Your task to perform on an android device: turn off smart reply in the gmail app Image 0: 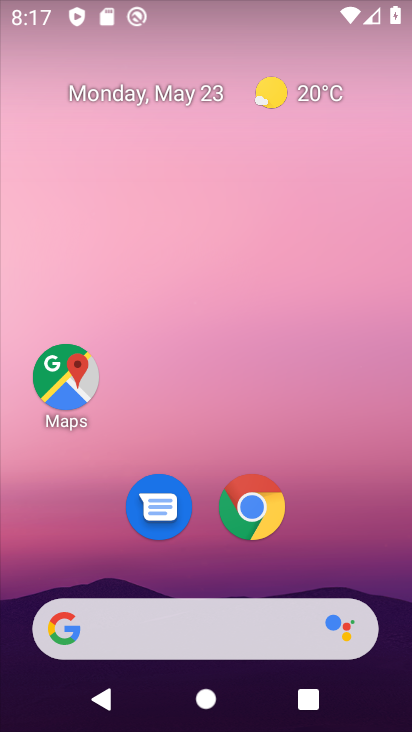
Step 0: drag from (345, 589) to (364, 37)
Your task to perform on an android device: turn off smart reply in the gmail app Image 1: 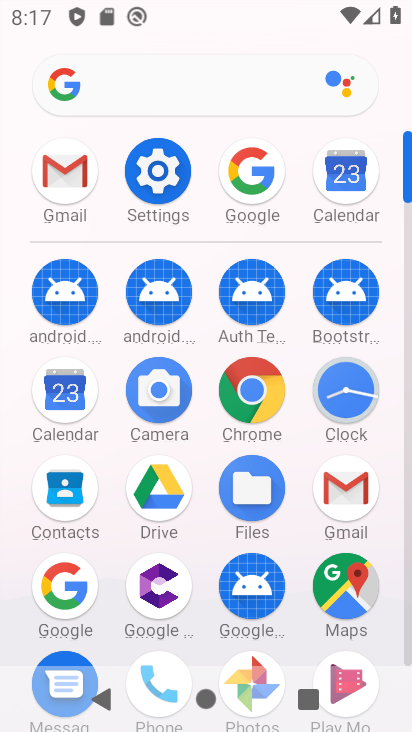
Step 1: click (72, 180)
Your task to perform on an android device: turn off smart reply in the gmail app Image 2: 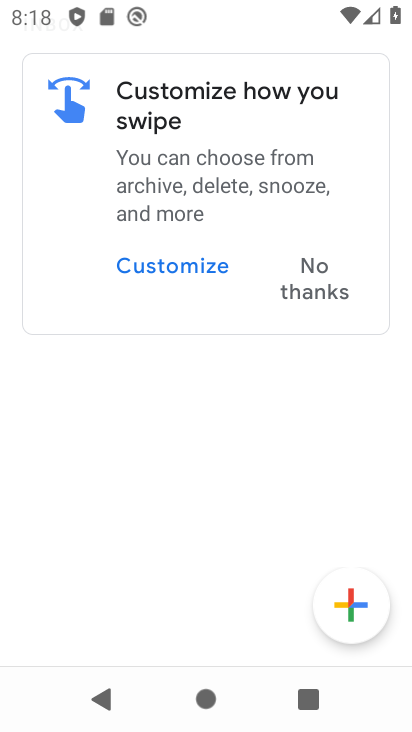
Step 2: drag from (193, 386) to (203, 472)
Your task to perform on an android device: turn off smart reply in the gmail app Image 3: 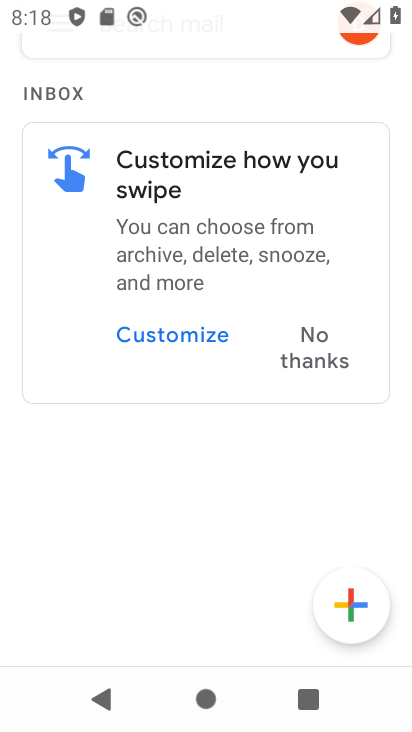
Step 3: drag from (107, 161) to (106, 318)
Your task to perform on an android device: turn off smart reply in the gmail app Image 4: 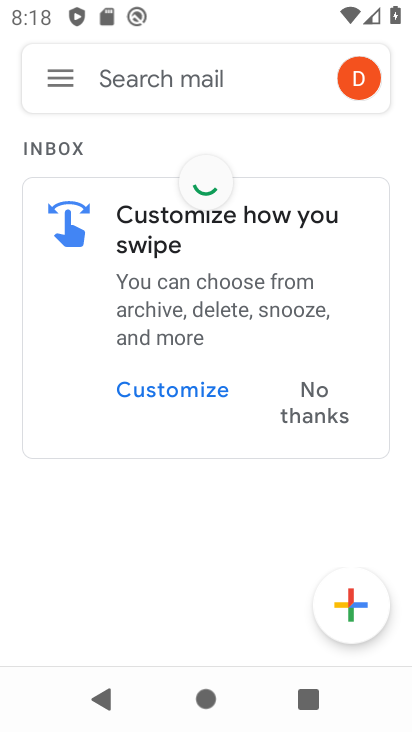
Step 4: click (54, 82)
Your task to perform on an android device: turn off smart reply in the gmail app Image 5: 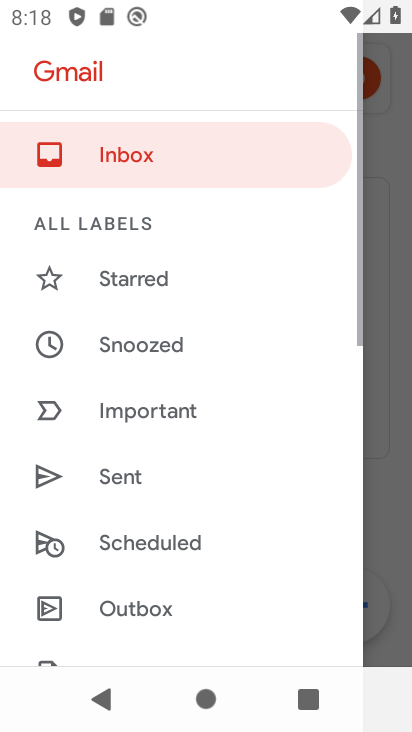
Step 5: drag from (156, 550) to (148, 61)
Your task to perform on an android device: turn off smart reply in the gmail app Image 6: 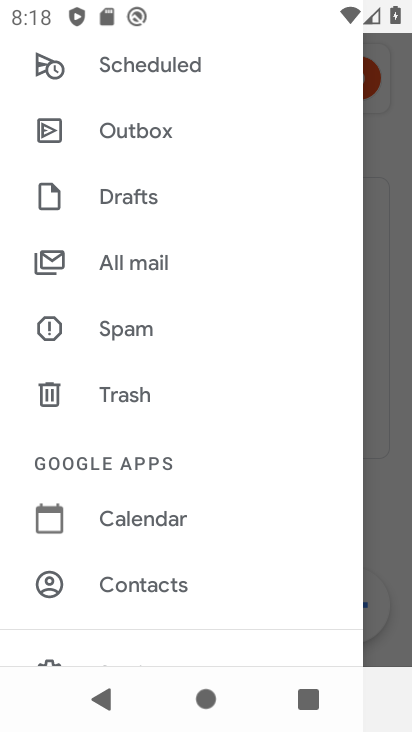
Step 6: drag from (137, 535) to (107, 171)
Your task to perform on an android device: turn off smart reply in the gmail app Image 7: 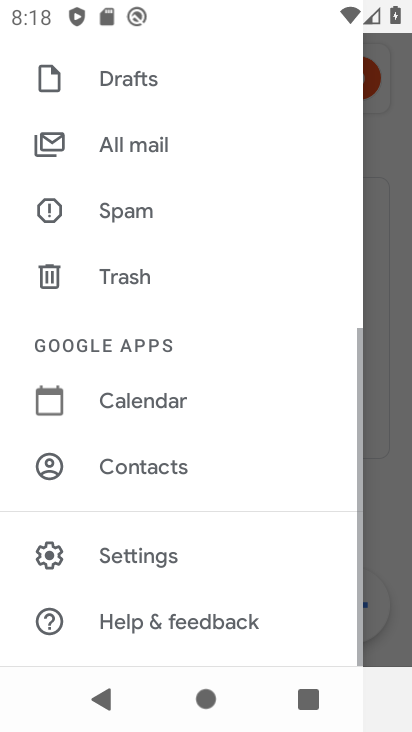
Step 7: click (100, 556)
Your task to perform on an android device: turn off smart reply in the gmail app Image 8: 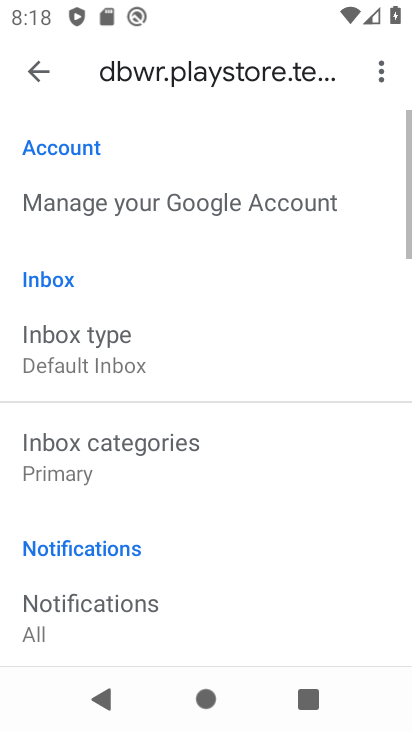
Step 8: drag from (209, 600) to (176, 72)
Your task to perform on an android device: turn off smart reply in the gmail app Image 9: 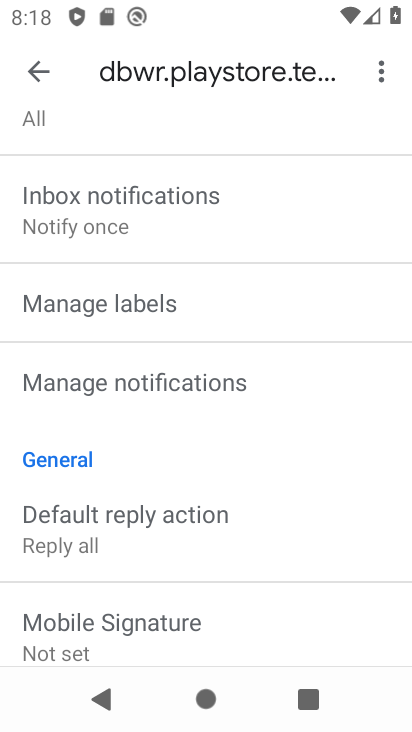
Step 9: drag from (188, 497) to (180, 78)
Your task to perform on an android device: turn off smart reply in the gmail app Image 10: 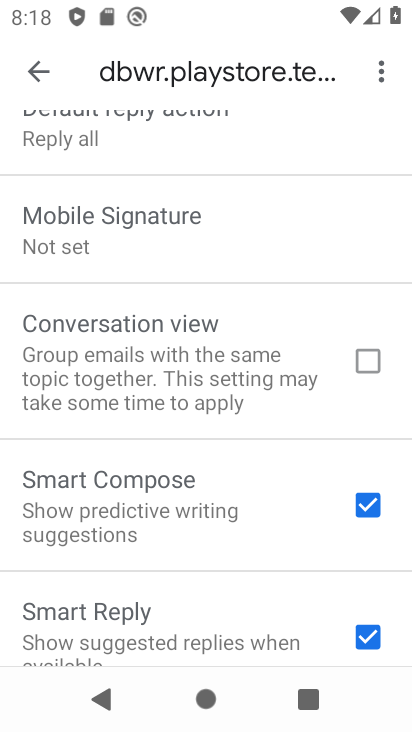
Step 10: drag from (168, 527) to (187, 227)
Your task to perform on an android device: turn off smart reply in the gmail app Image 11: 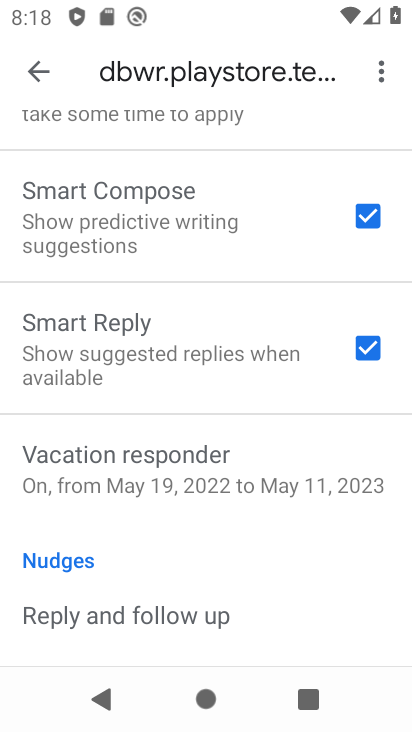
Step 11: click (374, 351)
Your task to perform on an android device: turn off smart reply in the gmail app Image 12: 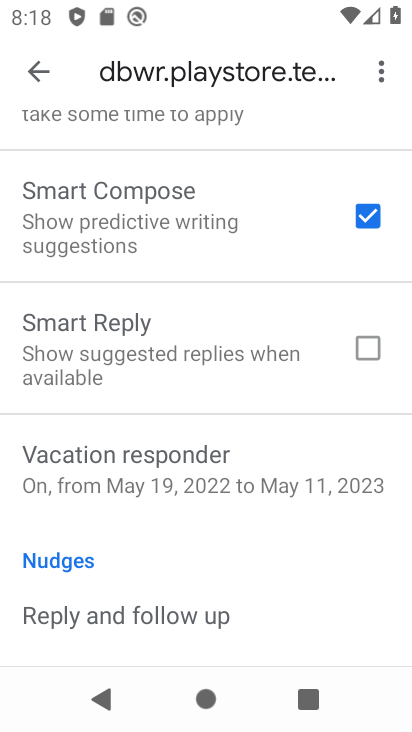
Step 12: task complete